Your task to perform on an android device: turn off sleep mode Image 0: 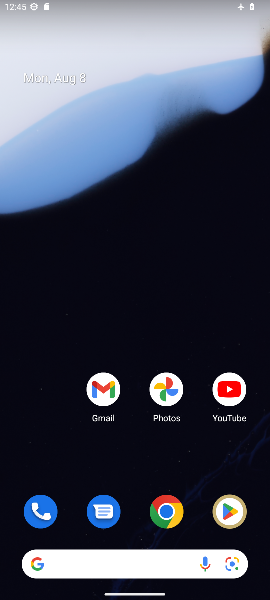
Step 0: drag from (40, 590) to (96, 326)
Your task to perform on an android device: turn off sleep mode Image 1: 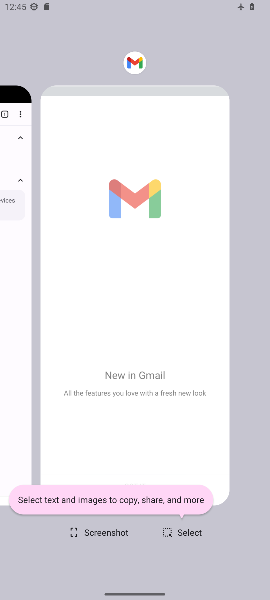
Step 1: press home button
Your task to perform on an android device: turn off sleep mode Image 2: 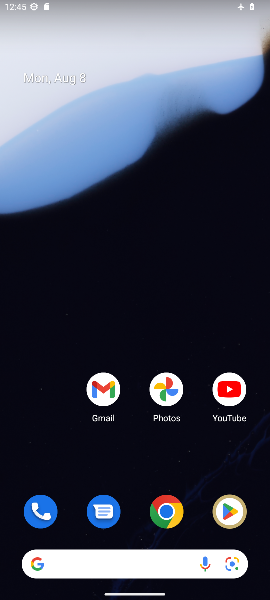
Step 2: drag from (60, 541) to (169, 136)
Your task to perform on an android device: turn off sleep mode Image 3: 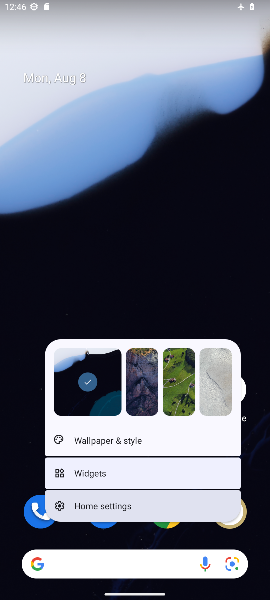
Step 3: click (173, 263)
Your task to perform on an android device: turn off sleep mode Image 4: 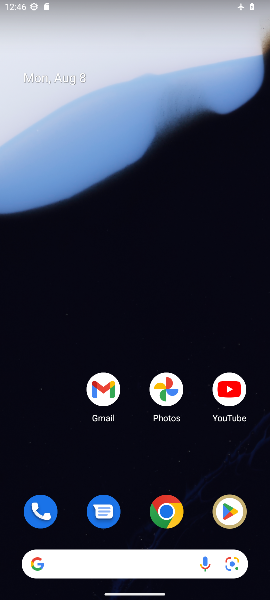
Step 4: drag from (50, 579) to (131, 50)
Your task to perform on an android device: turn off sleep mode Image 5: 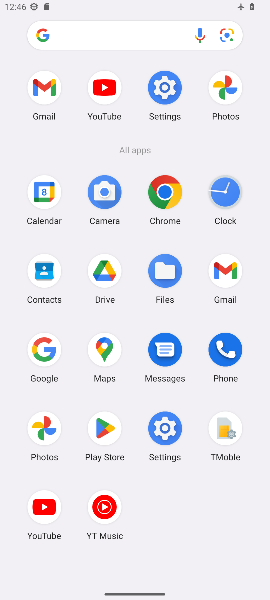
Step 5: click (177, 440)
Your task to perform on an android device: turn off sleep mode Image 6: 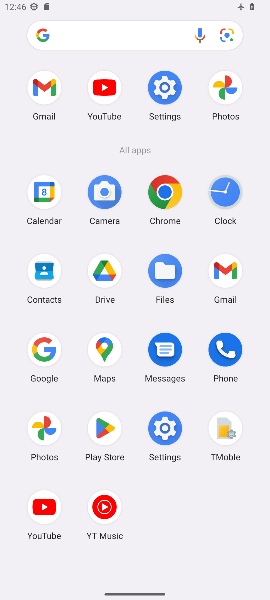
Step 6: click (177, 440)
Your task to perform on an android device: turn off sleep mode Image 7: 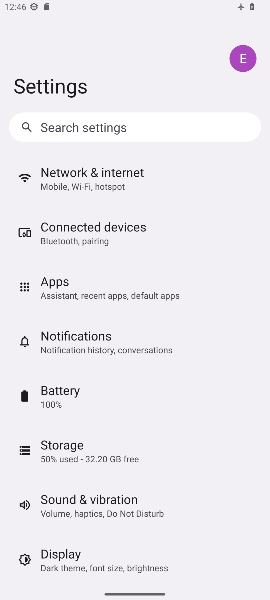
Step 7: task complete